Your task to perform on an android device: Open calendar and show me the third week of next month Image 0: 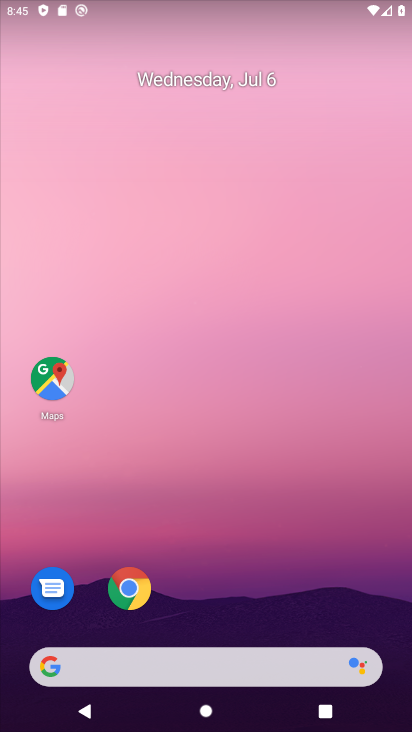
Step 0: drag from (212, 467) to (320, 69)
Your task to perform on an android device: Open calendar and show me the third week of next month Image 1: 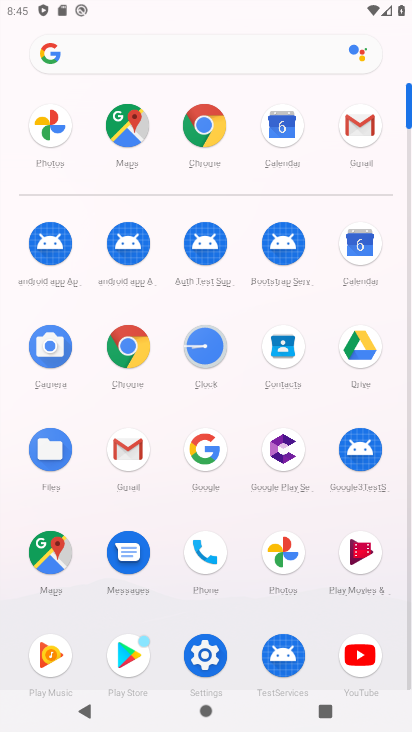
Step 1: click (358, 244)
Your task to perform on an android device: Open calendar and show me the third week of next month Image 2: 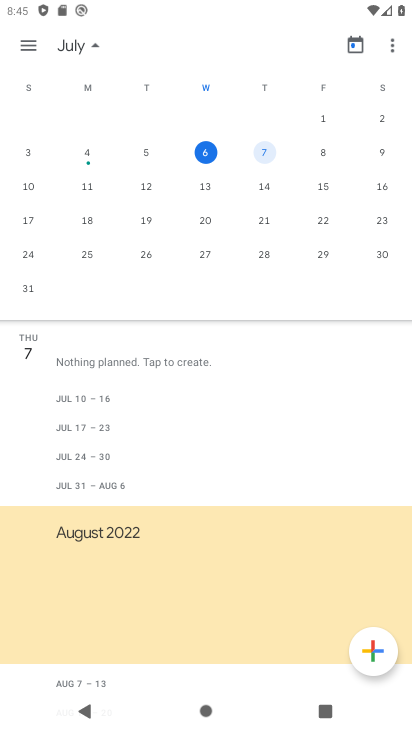
Step 2: drag from (369, 198) to (20, 245)
Your task to perform on an android device: Open calendar and show me the third week of next month Image 3: 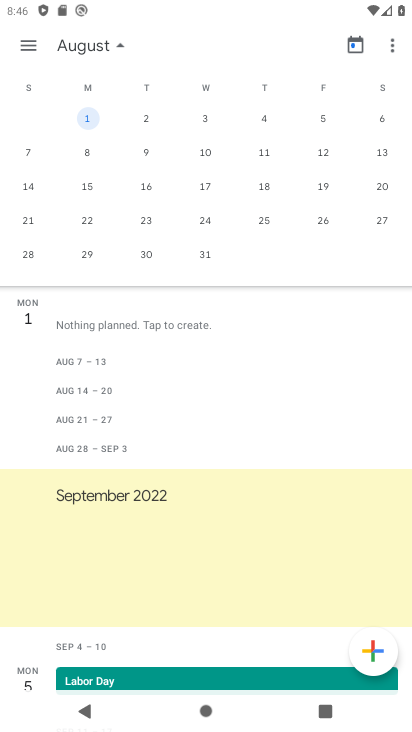
Step 3: click (266, 182)
Your task to perform on an android device: Open calendar and show me the third week of next month Image 4: 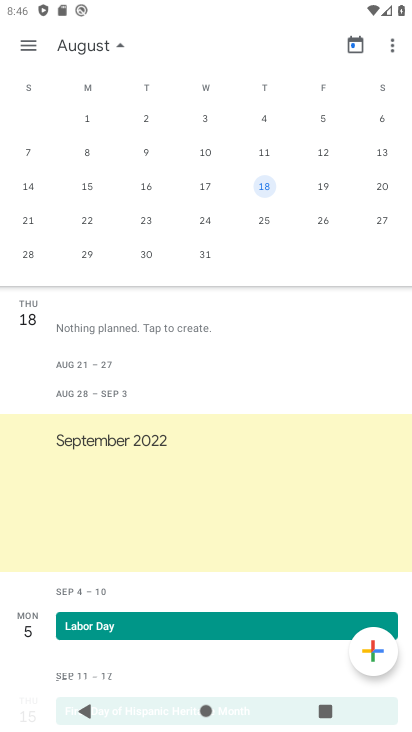
Step 4: task complete